Your task to perform on an android device: turn on the 24-hour format for clock Image 0: 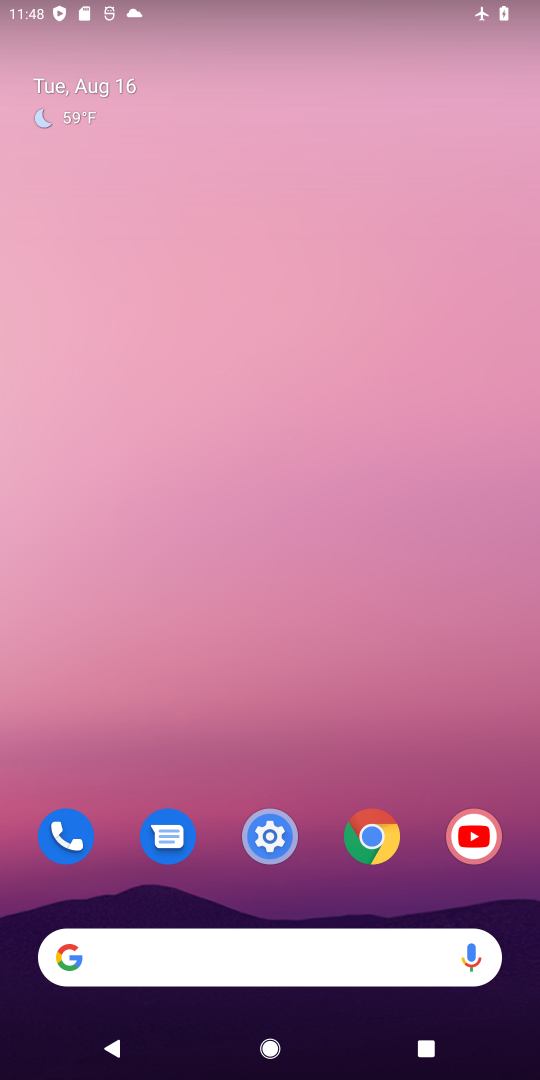
Step 0: drag from (223, 943) to (295, 58)
Your task to perform on an android device: turn on the 24-hour format for clock Image 1: 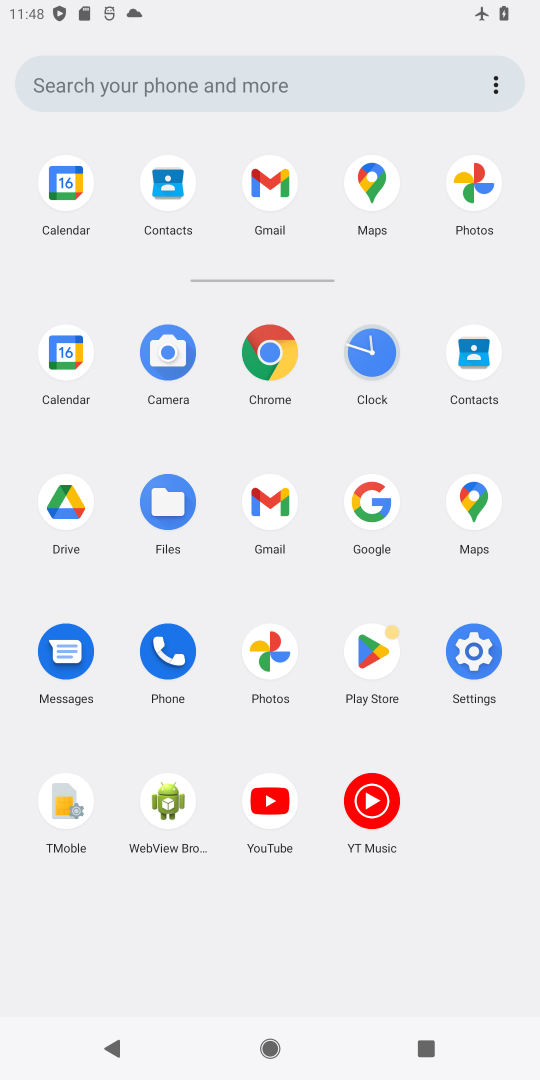
Step 1: click (372, 354)
Your task to perform on an android device: turn on the 24-hour format for clock Image 2: 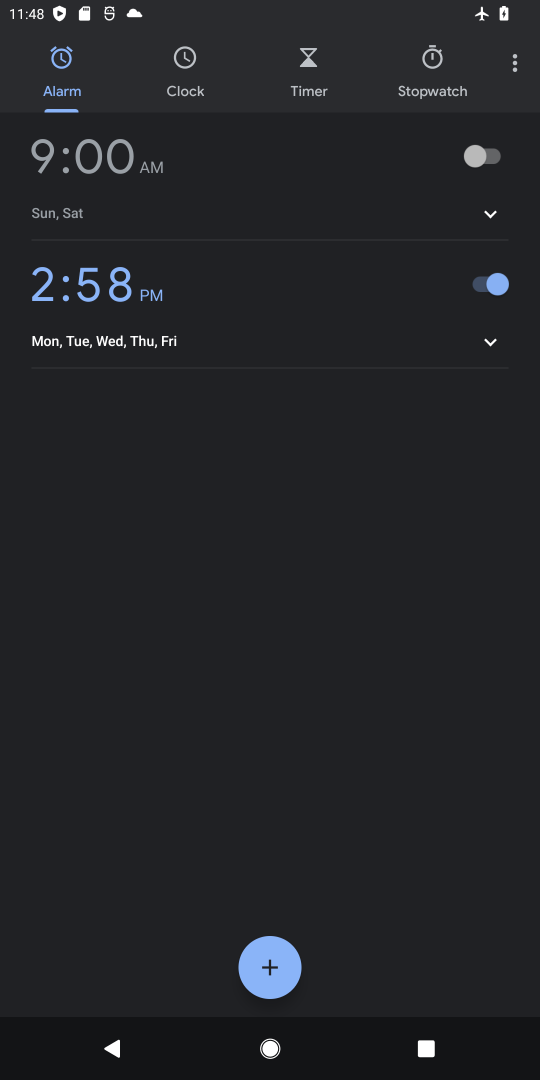
Step 2: click (518, 64)
Your task to perform on an android device: turn on the 24-hour format for clock Image 3: 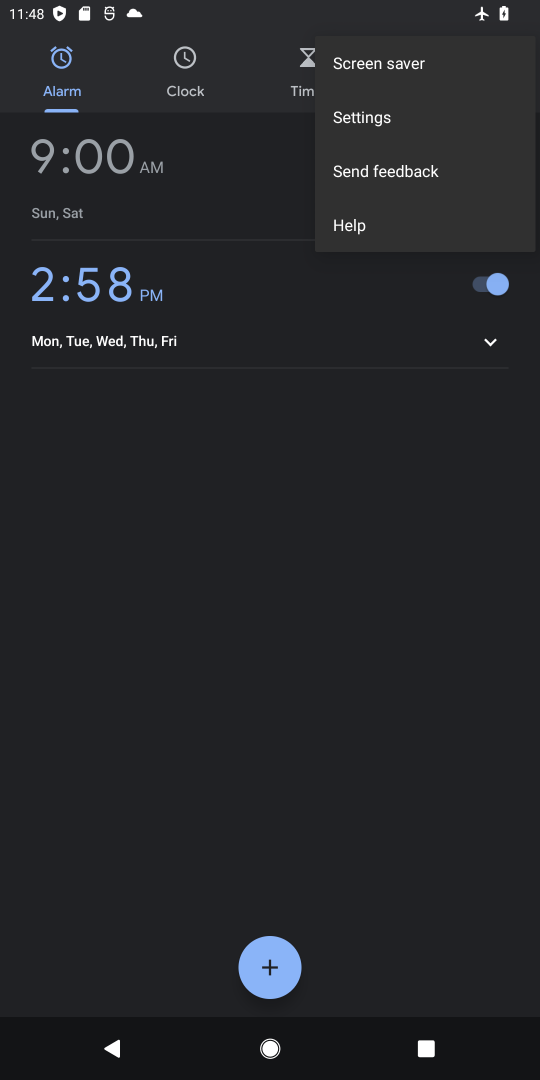
Step 3: click (379, 120)
Your task to perform on an android device: turn on the 24-hour format for clock Image 4: 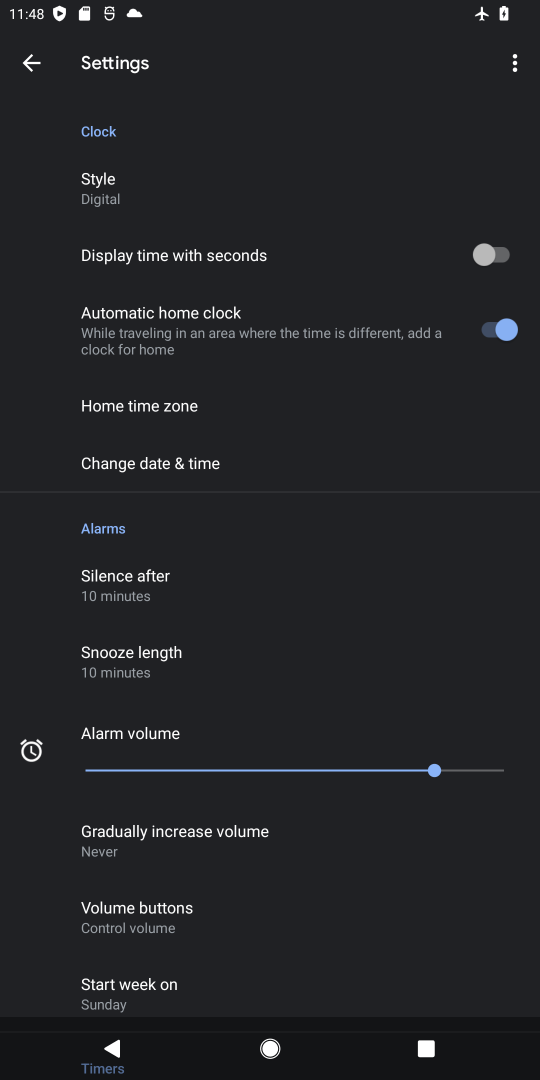
Step 4: click (193, 460)
Your task to perform on an android device: turn on the 24-hour format for clock Image 5: 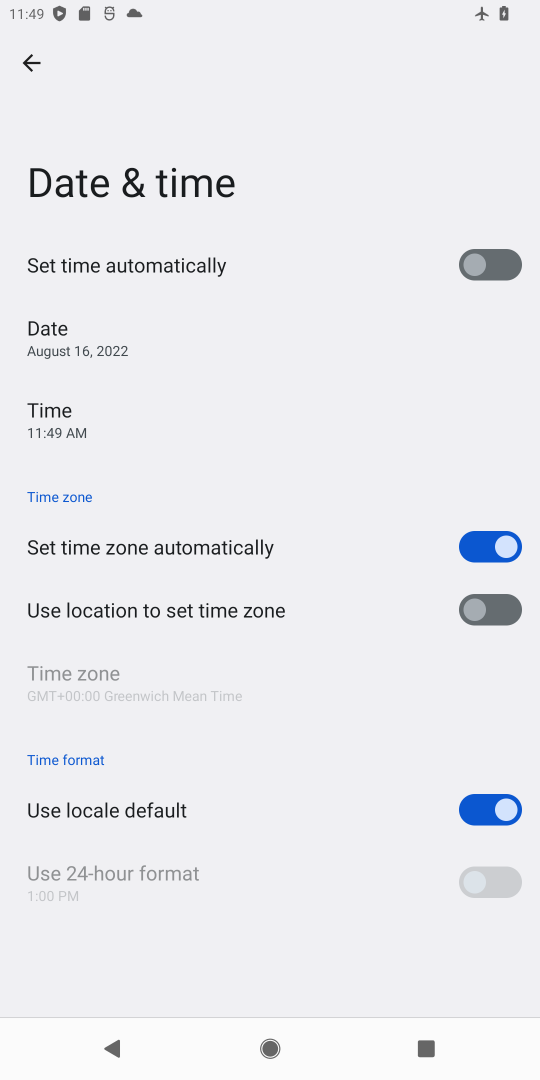
Step 5: task complete